Your task to perform on an android device: change your default location settings in chrome Image 0: 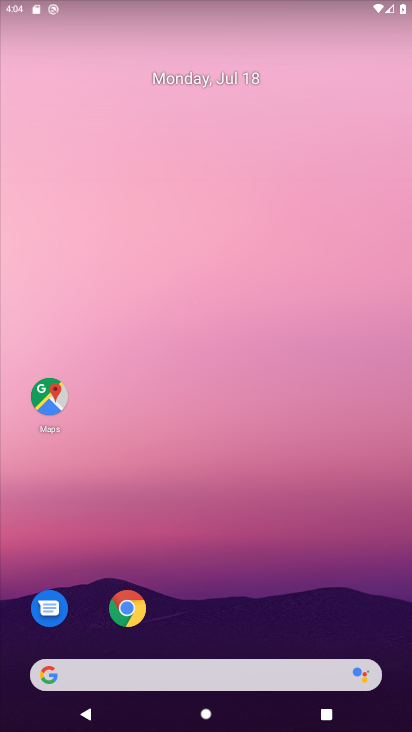
Step 0: drag from (218, 599) to (291, 2)
Your task to perform on an android device: change your default location settings in chrome Image 1: 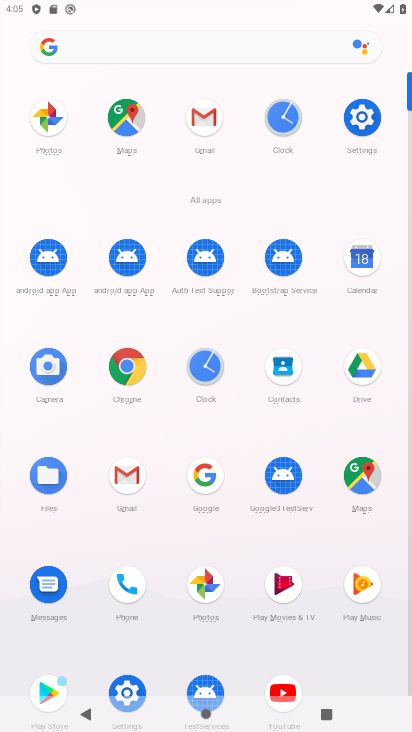
Step 1: click (137, 357)
Your task to perform on an android device: change your default location settings in chrome Image 2: 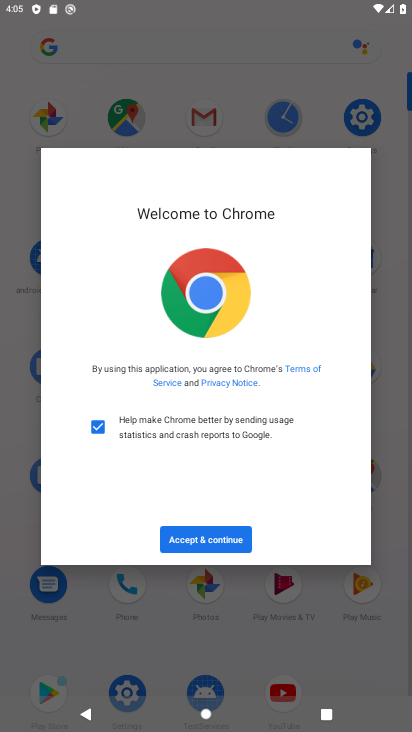
Step 2: click (205, 539)
Your task to perform on an android device: change your default location settings in chrome Image 3: 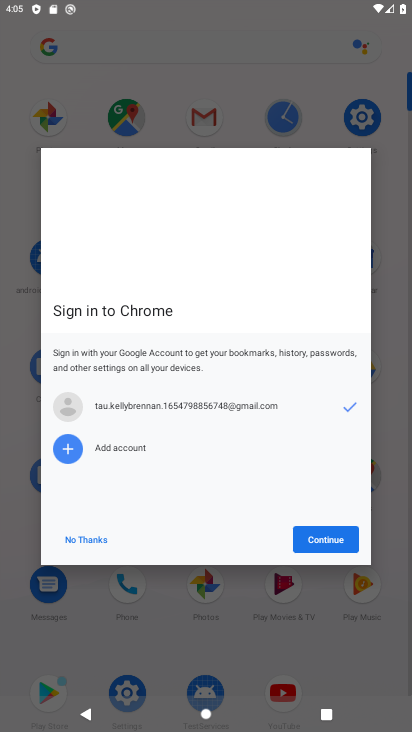
Step 3: click (319, 532)
Your task to perform on an android device: change your default location settings in chrome Image 4: 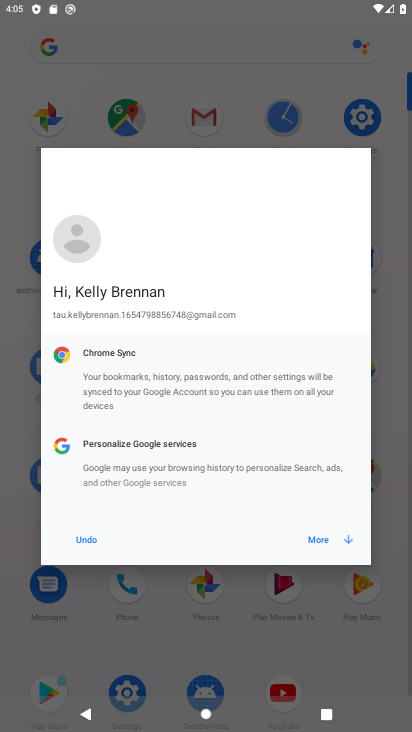
Step 4: click (319, 532)
Your task to perform on an android device: change your default location settings in chrome Image 5: 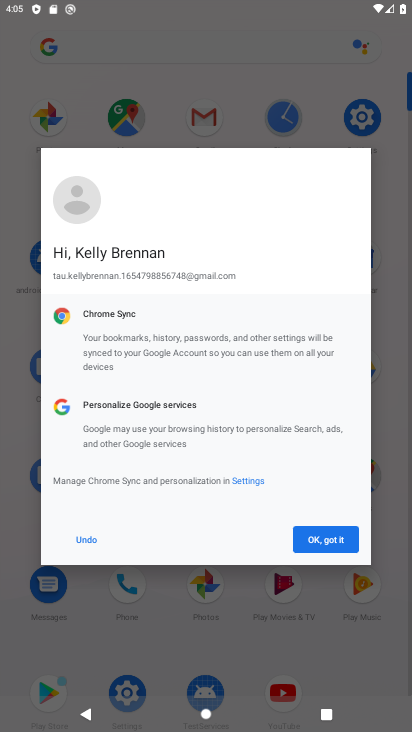
Step 5: click (319, 532)
Your task to perform on an android device: change your default location settings in chrome Image 6: 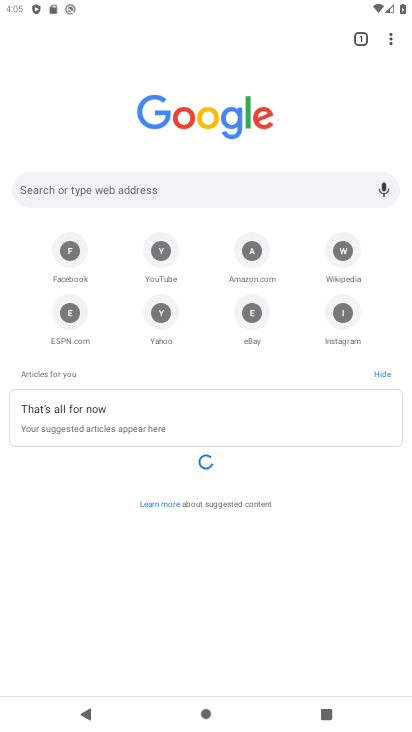
Step 6: click (389, 34)
Your task to perform on an android device: change your default location settings in chrome Image 7: 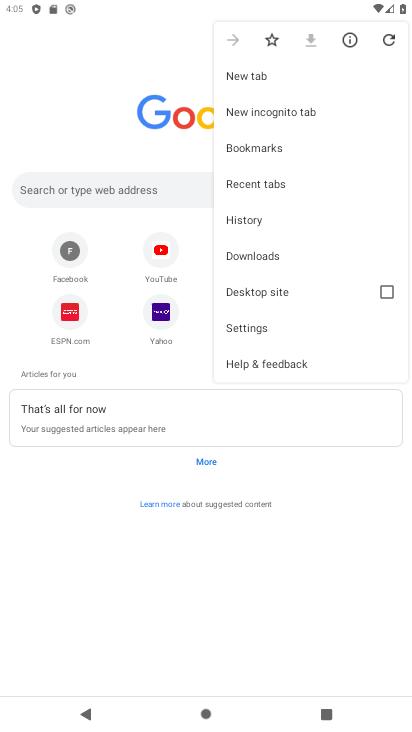
Step 7: click (242, 321)
Your task to perform on an android device: change your default location settings in chrome Image 8: 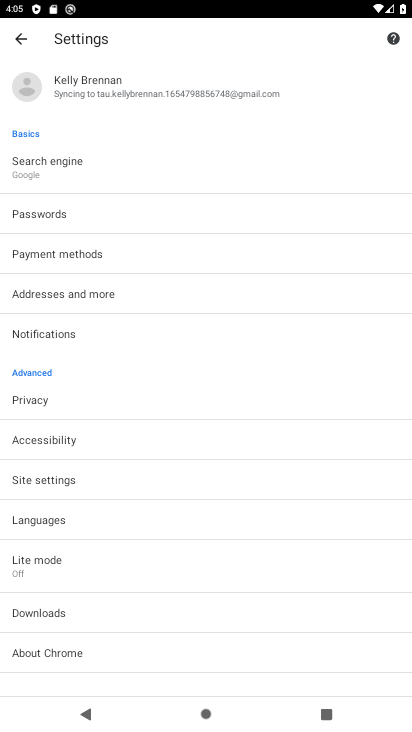
Step 8: click (145, 476)
Your task to perform on an android device: change your default location settings in chrome Image 9: 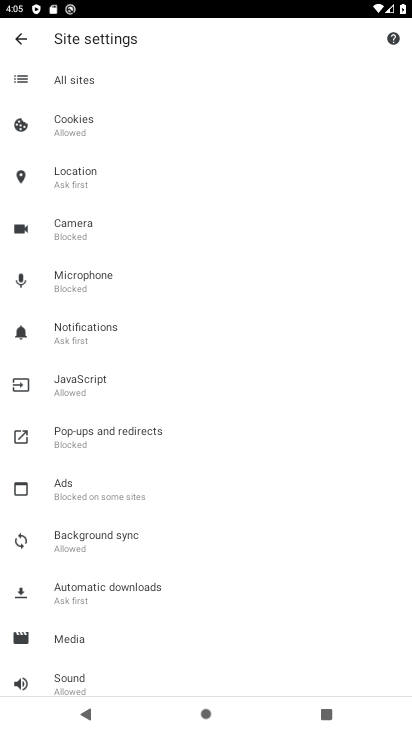
Step 9: click (72, 186)
Your task to perform on an android device: change your default location settings in chrome Image 10: 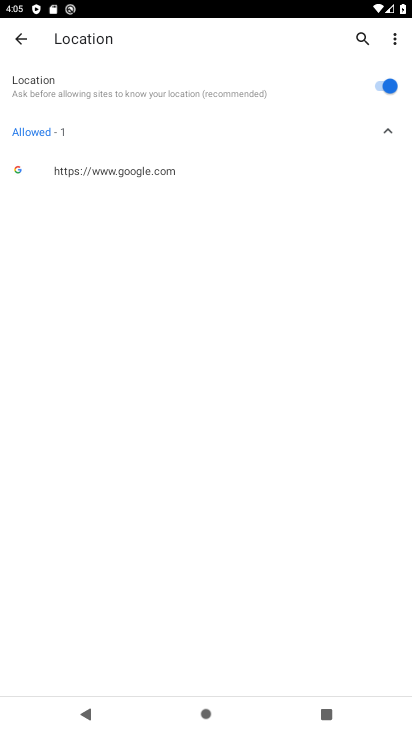
Step 10: click (388, 86)
Your task to perform on an android device: change your default location settings in chrome Image 11: 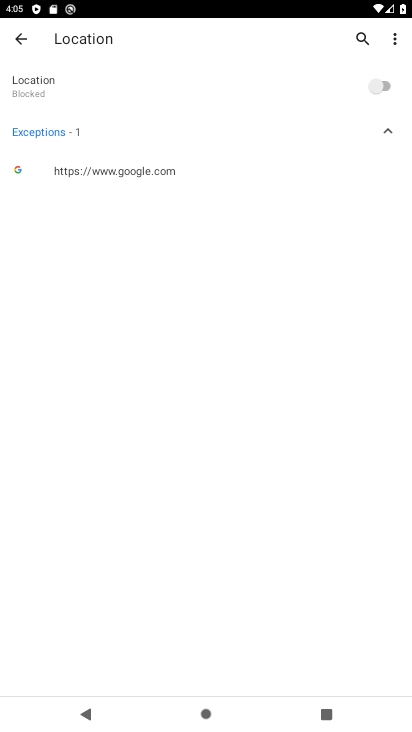
Step 11: task complete